Your task to perform on an android device: turn smart compose on in the gmail app Image 0: 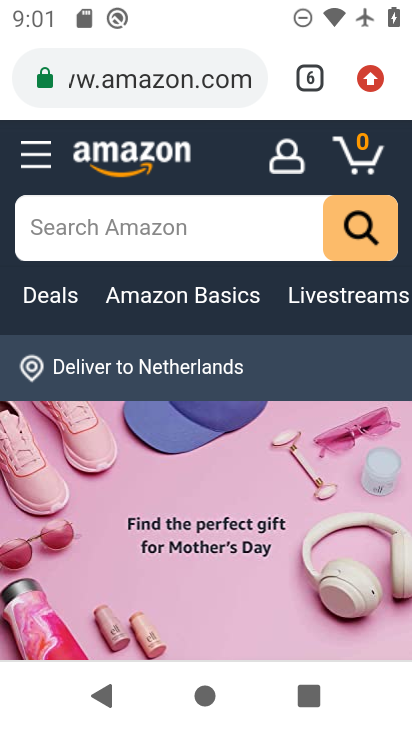
Step 0: press home button
Your task to perform on an android device: turn smart compose on in the gmail app Image 1: 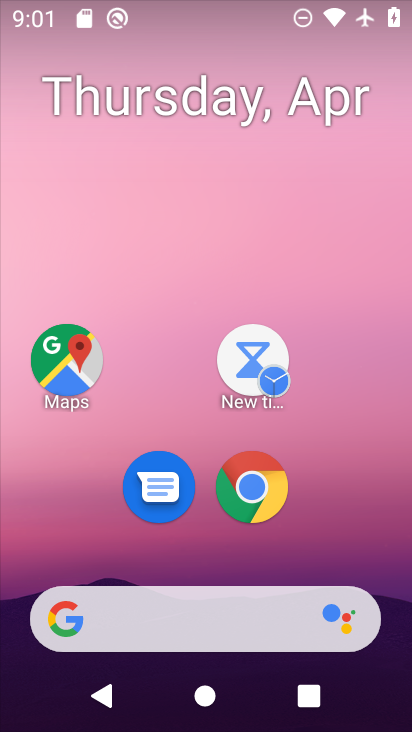
Step 1: drag from (335, 404) to (250, 10)
Your task to perform on an android device: turn smart compose on in the gmail app Image 2: 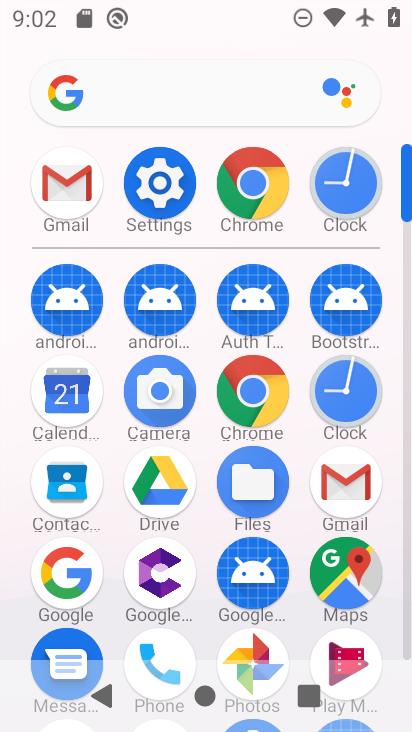
Step 2: click (353, 483)
Your task to perform on an android device: turn smart compose on in the gmail app Image 3: 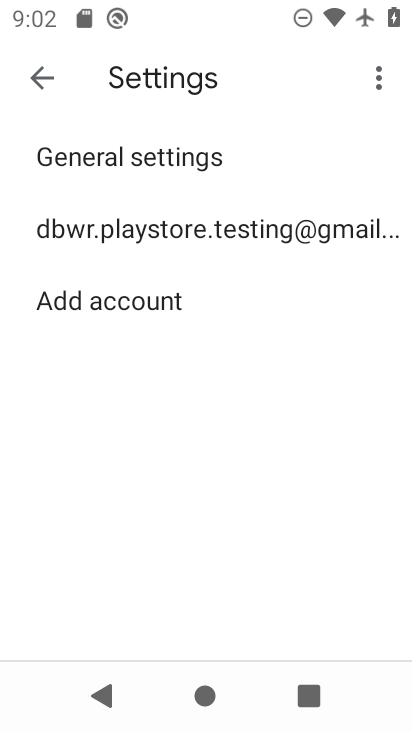
Step 3: click (211, 236)
Your task to perform on an android device: turn smart compose on in the gmail app Image 4: 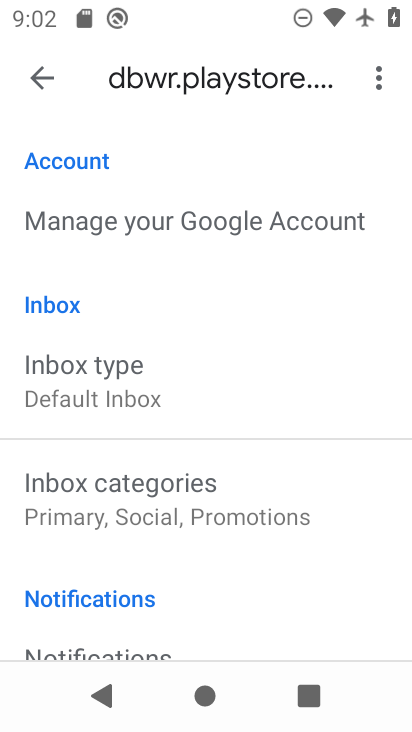
Step 4: task complete